Your task to perform on an android device: change text size in settings app Image 0: 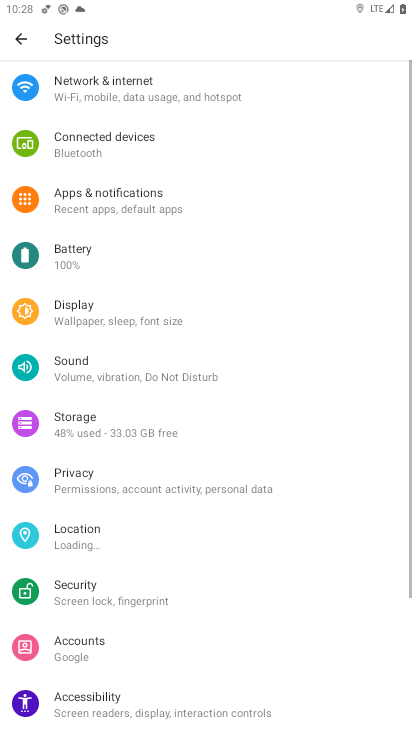
Step 0: press home button
Your task to perform on an android device: change text size in settings app Image 1: 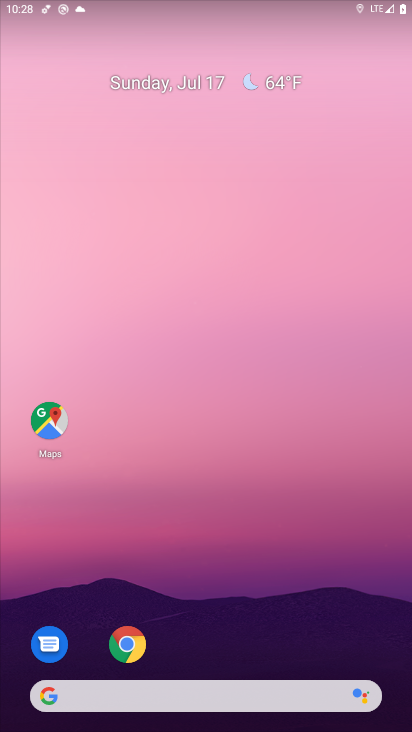
Step 1: drag from (239, 652) to (217, 59)
Your task to perform on an android device: change text size in settings app Image 2: 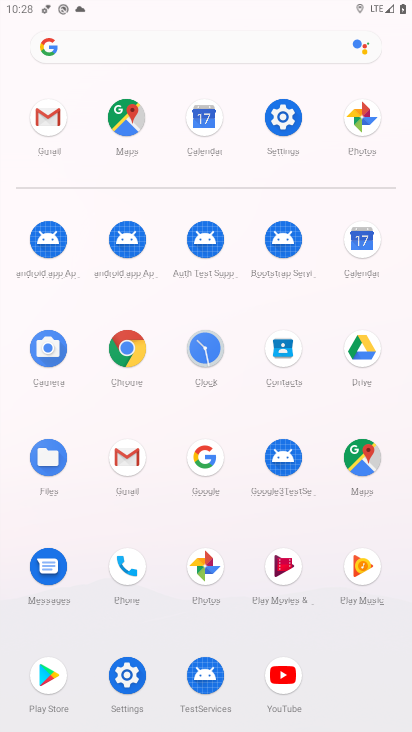
Step 2: click (278, 121)
Your task to perform on an android device: change text size in settings app Image 3: 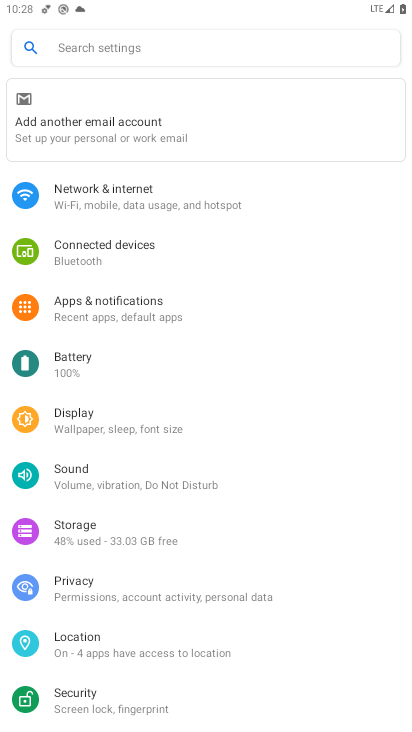
Step 3: drag from (304, 642) to (259, 95)
Your task to perform on an android device: change text size in settings app Image 4: 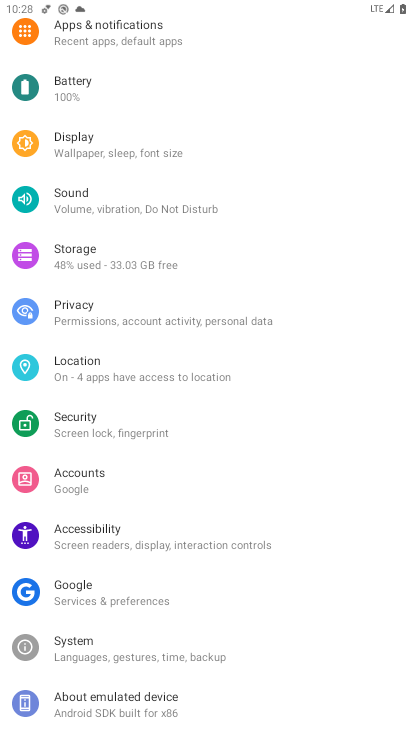
Step 4: click (113, 144)
Your task to perform on an android device: change text size in settings app Image 5: 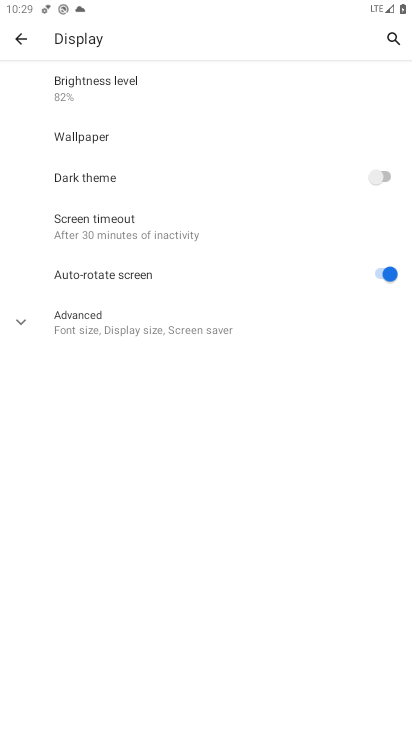
Step 5: click (72, 324)
Your task to perform on an android device: change text size in settings app Image 6: 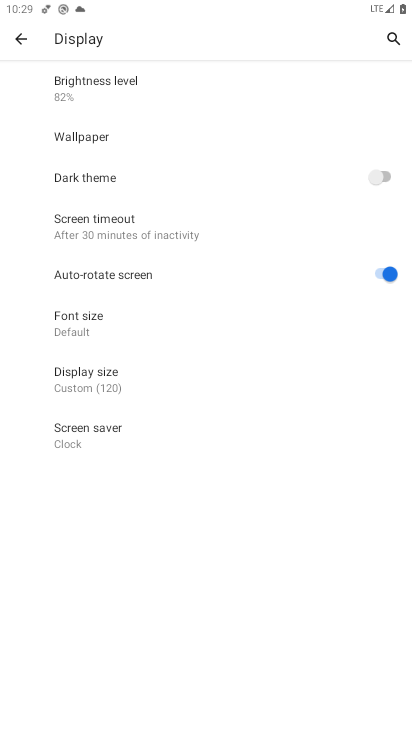
Step 6: click (80, 327)
Your task to perform on an android device: change text size in settings app Image 7: 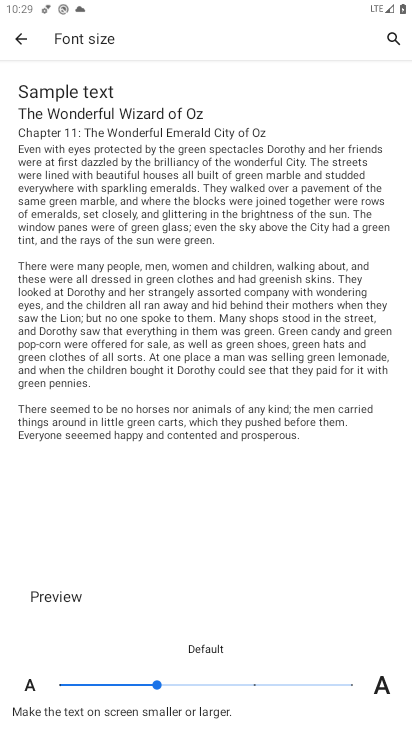
Step 7: click (267, 669)
Your task to perform on an android device: change text size in settings app Image 8: 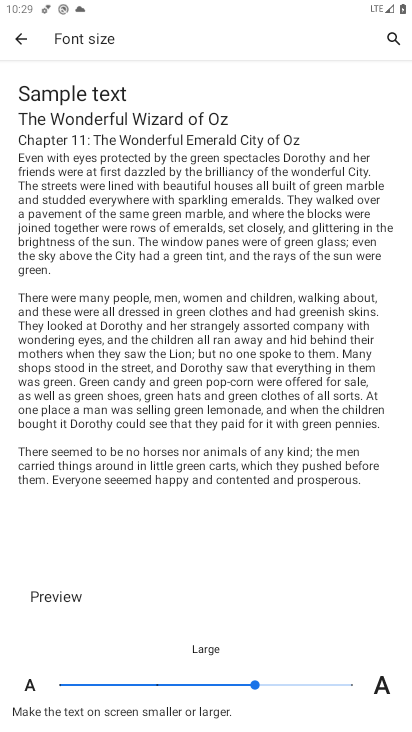
Step 8: click (256, 688)
Your task to perform on an android device: change text size in settings app Image 9: 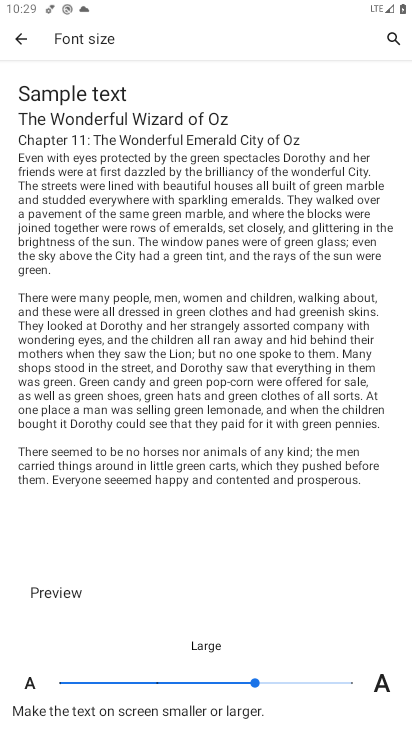
Step 9: click (353, 685)
Your task to perform on an android device: change text size in settings app Image 10: 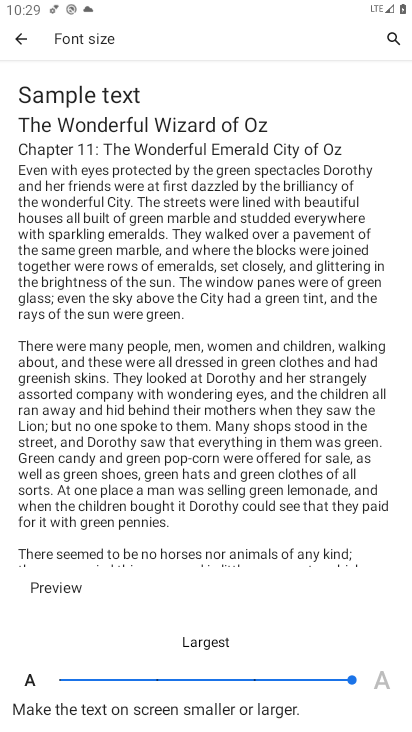
Step 10: task complete